Your task to perform on an android device: Open sound settings Image 0: 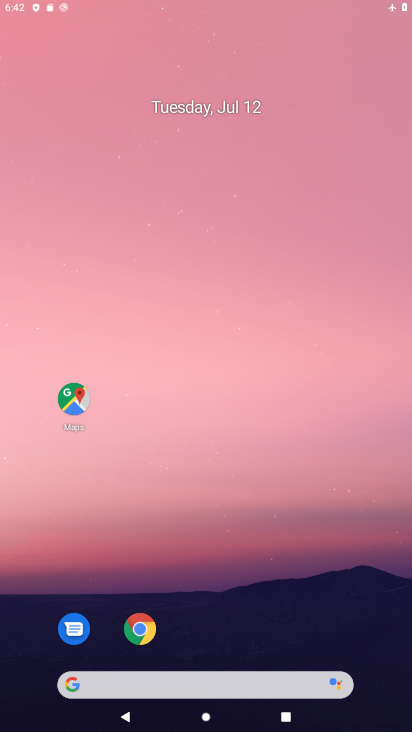
Step 0: drag from (174, 239) to (165, 164)
Your task to perform on an android device: Open sound settings Image 1: 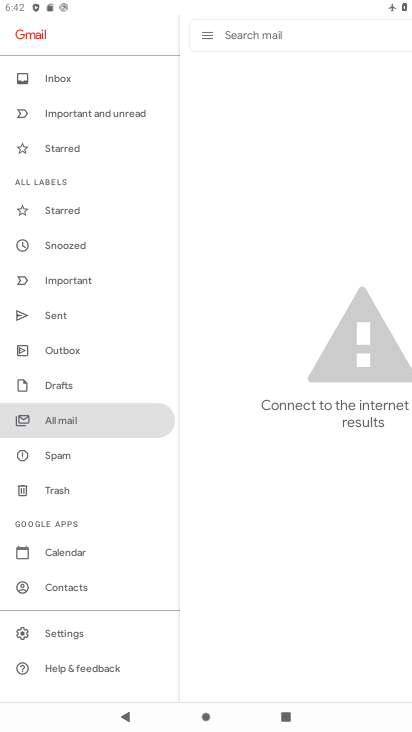
Step 1: press home button
Your task to perform on an android device: Open sound settings Image 2: 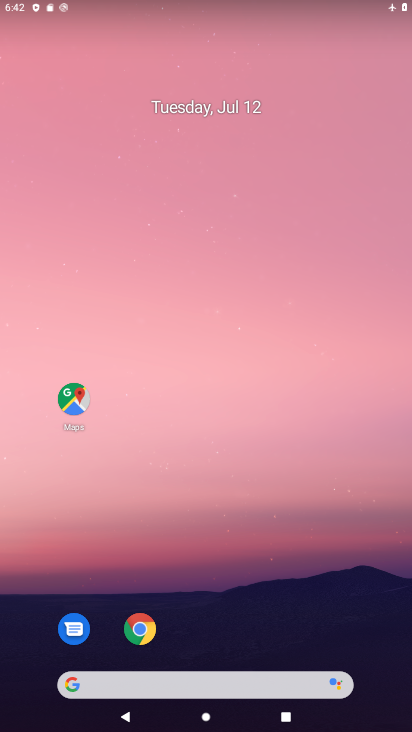
Step 2: drag from (218, 574) to (196, 200)
Your task to perform on an android device: Open sound settings Image 3: 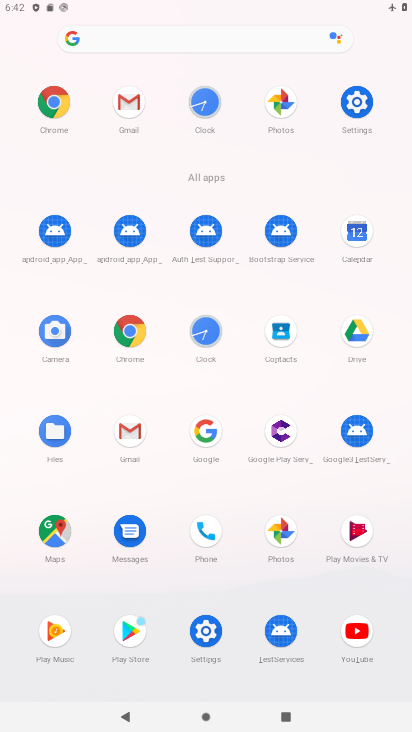
Step 3: click (353, 105)
Your task to perform on an android device: Open sound settings Image 4: 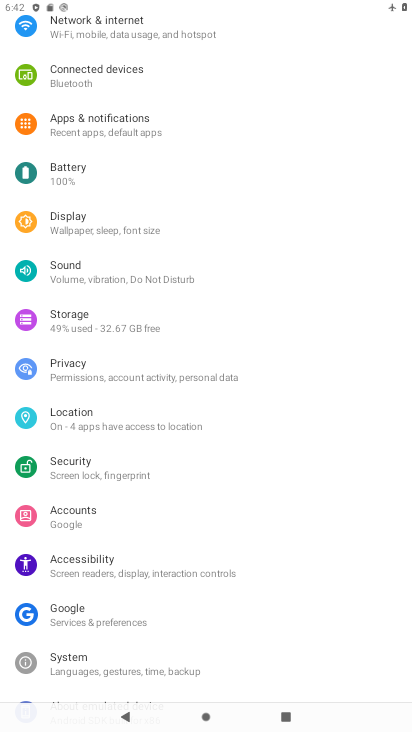
Step 4: click (60, 267)
Your task to perform on an android device: Open sound settings Image 5: 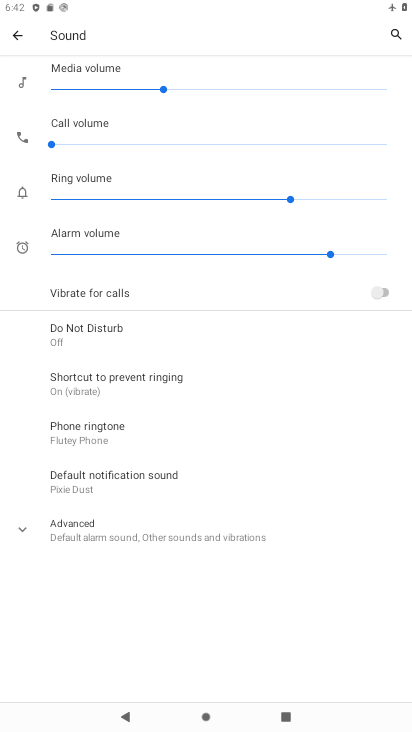
Step 5: task complete